Your task to perform on an android device: open sync settings in chrome Image 0: 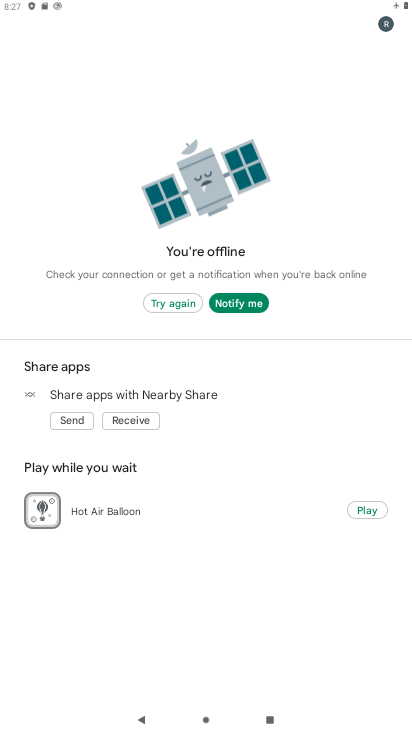
Step 0: drag from (266, 532) to (250, 202)
Your task to perform on an android device: open sync settings in chrome Image 1: 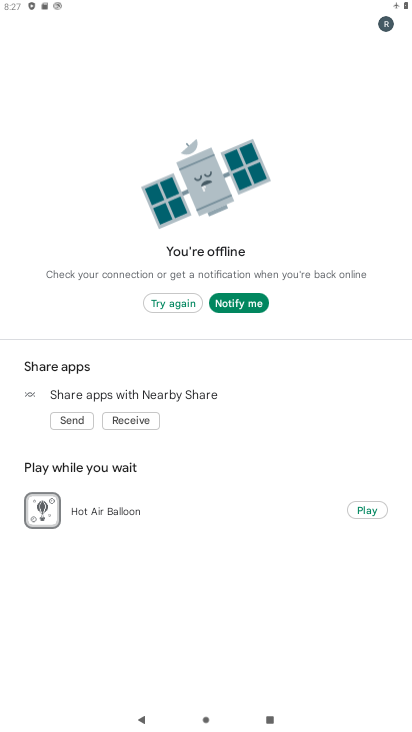
Step 1: press home button
Your task to perform on an android device: open sync settings in chrome Image 2: 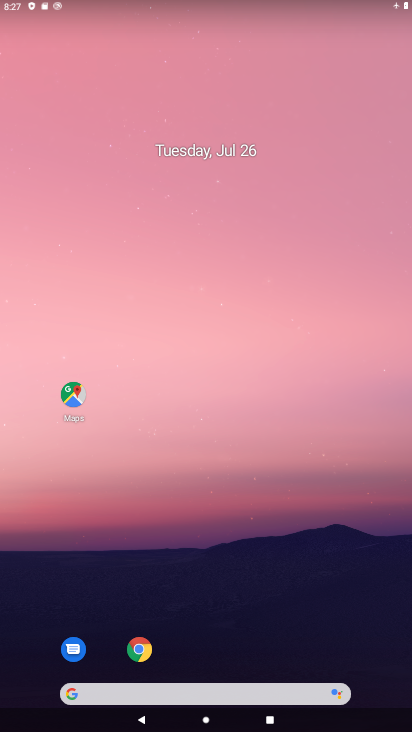
Step 2: drag from (205, 646) to (250, 75)
Your task to perform on an android device: open sync settings in chrome Image 3: 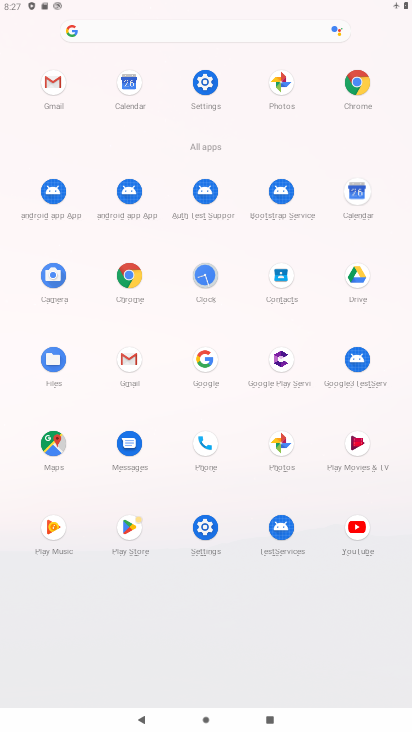
Step 3: click (133, 274)
Your task to perform on an android device: open sync settings in chrome Image 4: 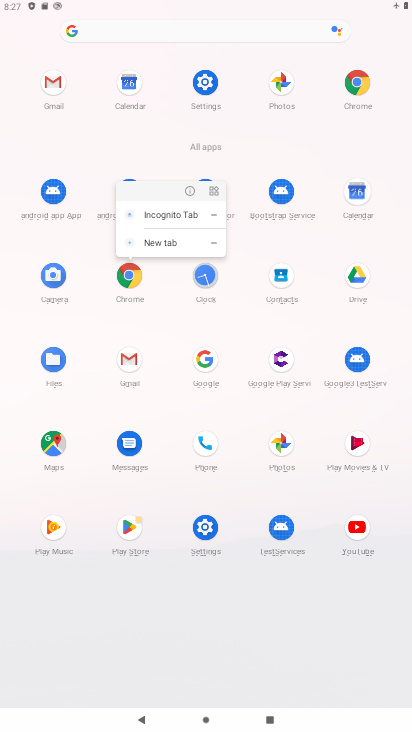
Step 4: click (186, 188)
Your task to perform on an android device: open sync settings in chrome Image 5: 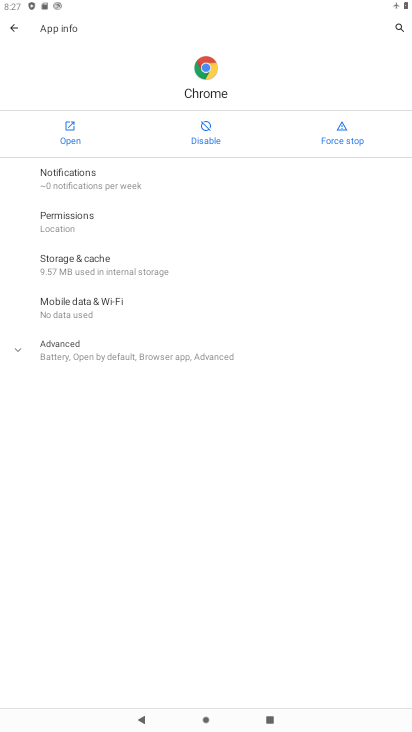
Step 5: click (87, 114)
Your task to perform on an android device: open sync settings in chrome Image 6: 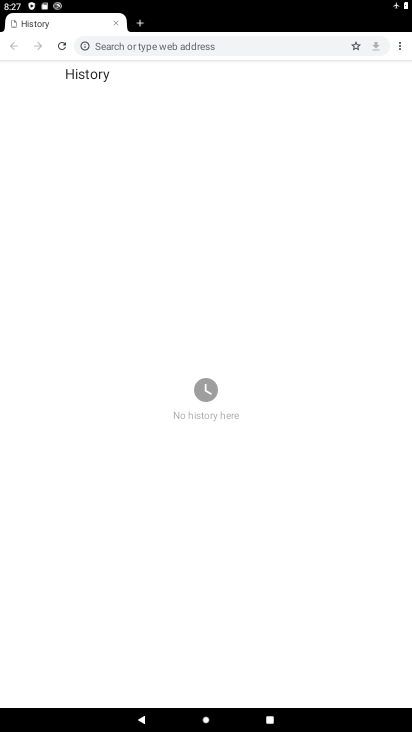
Step 6: drag from (403, 47) to (316, 211)
Your task to perform on an android device: open sync settings in chrome Image 7: 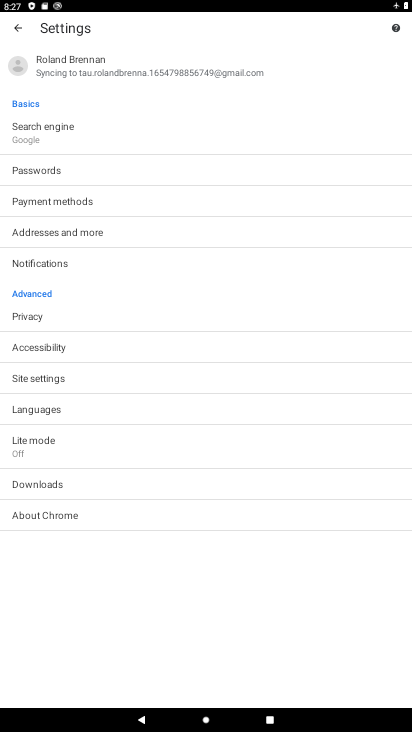
Step 7: click (44, 374)
Your task to perform on an android device: open sync settings in chrome Image 8: 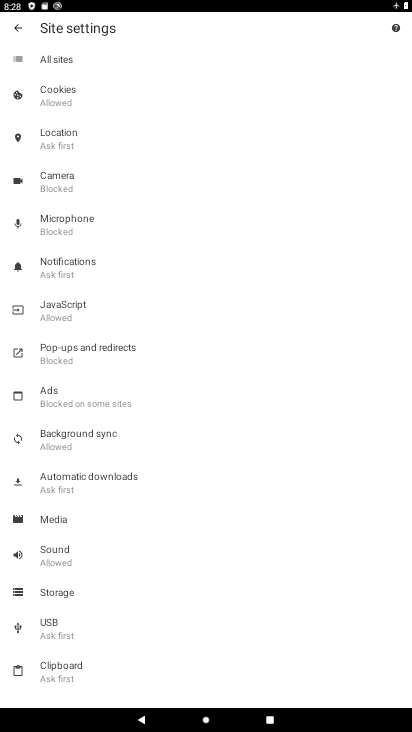
Step 8: click (95, 436)
Your task to perform on an android device: open sync settings in chrome Image 9: 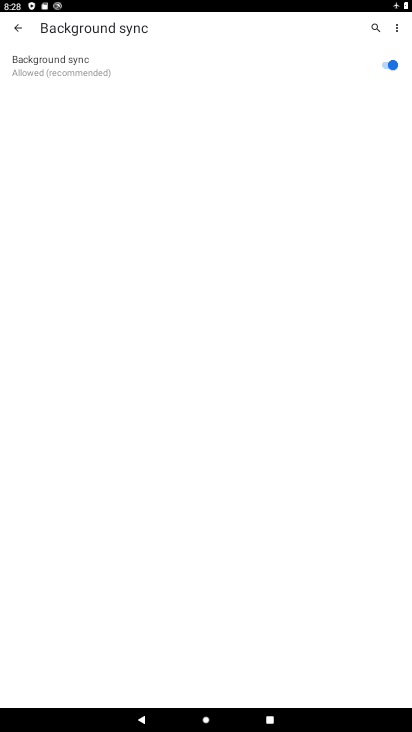
Step 9: task complete